Your task to perform on an android device: Open Yahoo.com Image 0: 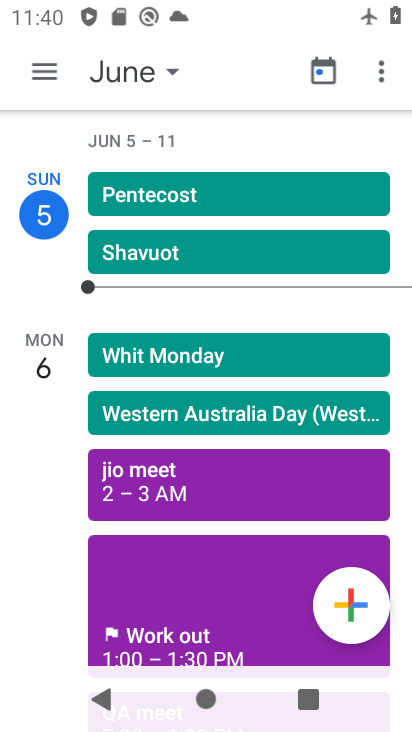
Step 0: press home button
Your task to perform on an android device: Open Yahoo.com Image 1: 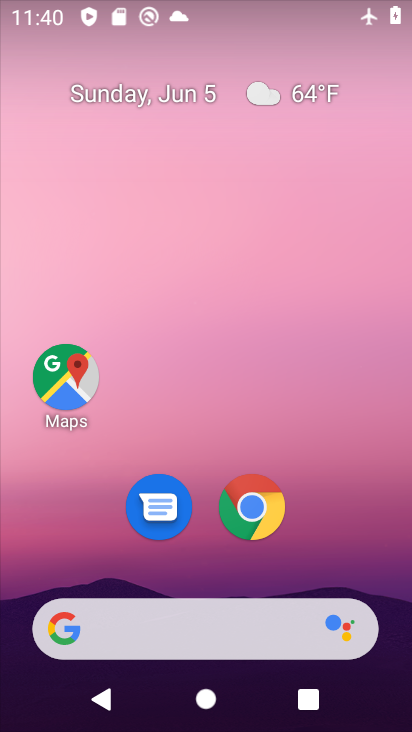
Step 1: click (249, 507)
Your task to perform on an android device: Open Yahoo.com Image 2: 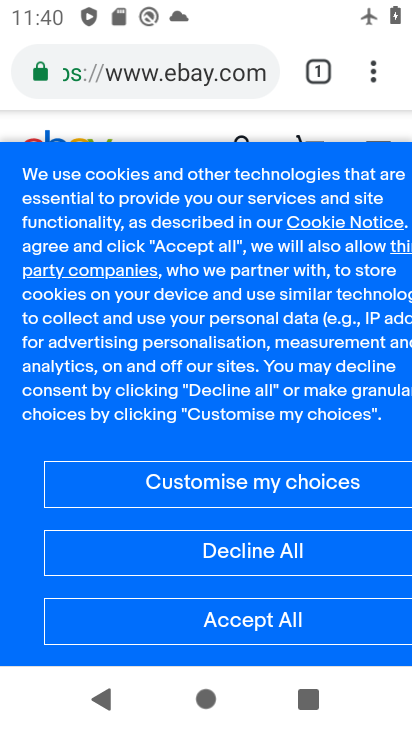
Step 2: click (217, 83)
Your task to perform on an android device: Open Yahoo.com Image 3: 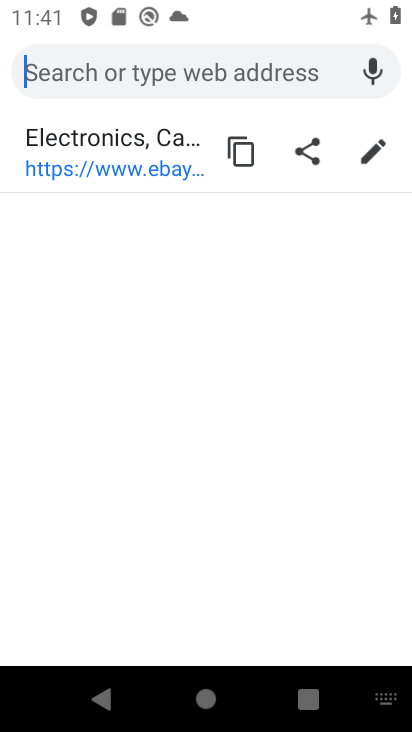
Step 3: type "yahoo.com"
Your task to perform on an android device: Open Yahoo.com Image 4: 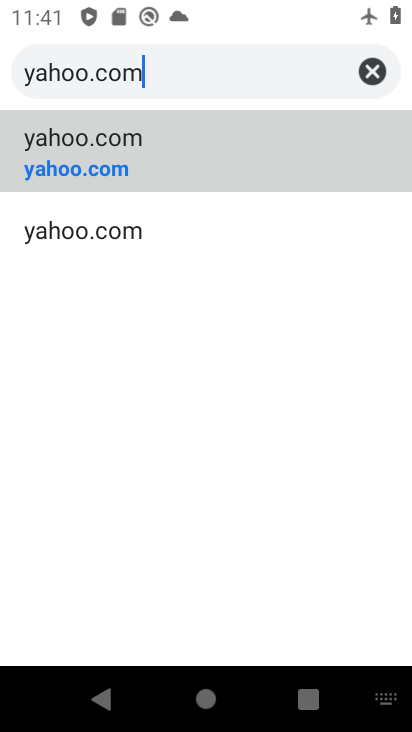
Step 4: type ""
Your task to perform on an android device: Open Yahoo.com Image 5: 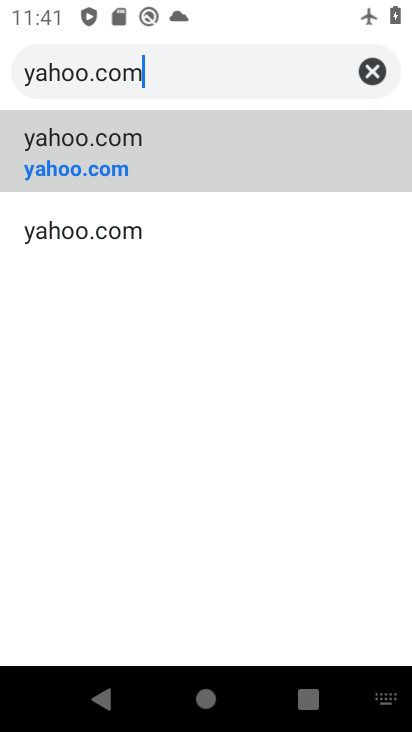
Step 5: click (95, 161)
Your task to perform on an android device: Open Yahoo.com Image 6: 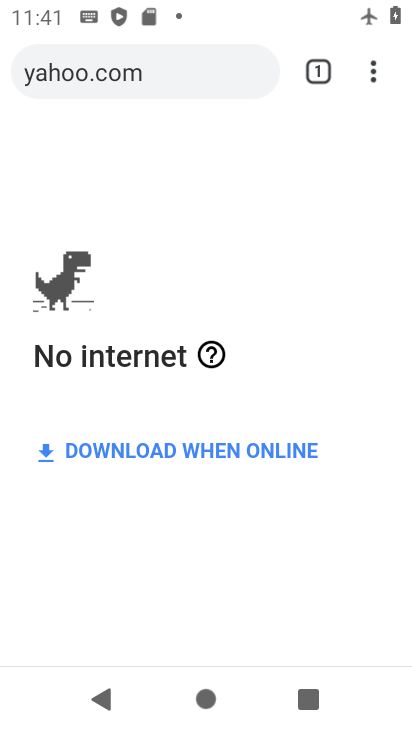
Step 6: task complete